Your task to perform on an android device: Open Google Maps and go to "Timeline" Image 0: 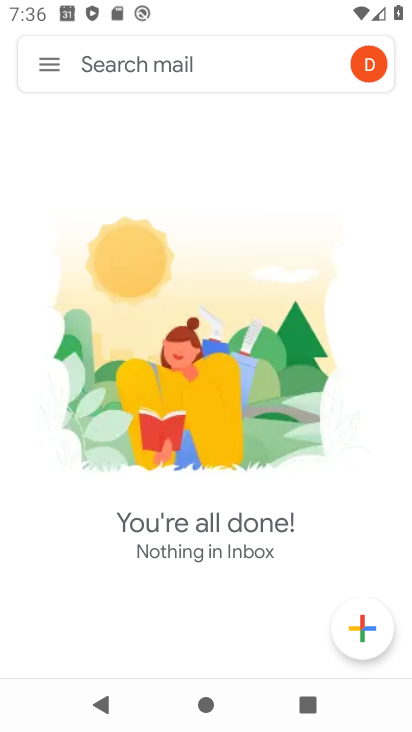
Step 0: press home button
Your task to perform on an android device: Open Google Maps and go to "Timeline" Image 1: 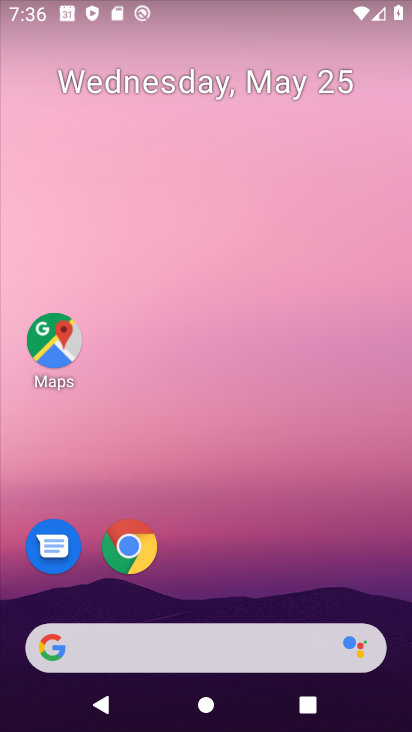
Step 1: drag from (384, 584) to (384, 209)
Your task to perform on an android device: Open Google Maps and go to "Timeline" Image 2: 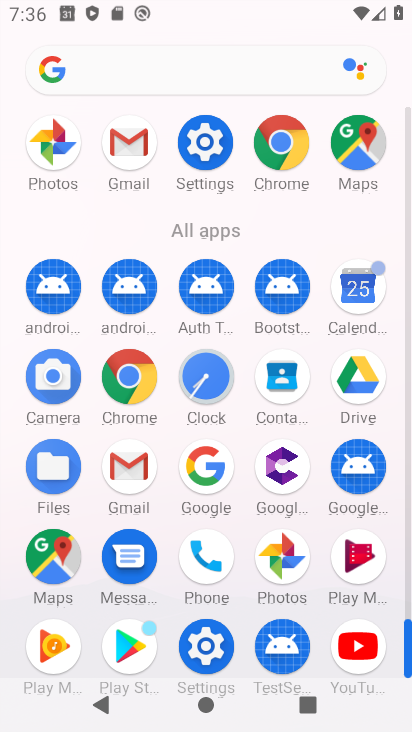
Step 2: click (367, 140)
Your task to perform on an android device: Open Google Maps and go to "Timeline" Image 3: 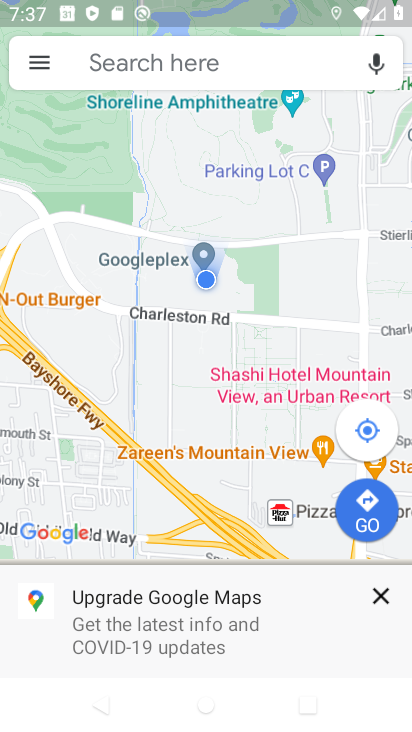
Step 3: click (41, 64)
Your task to perform on an android device: Open Google Maps and go to "Timeline" Image 4: 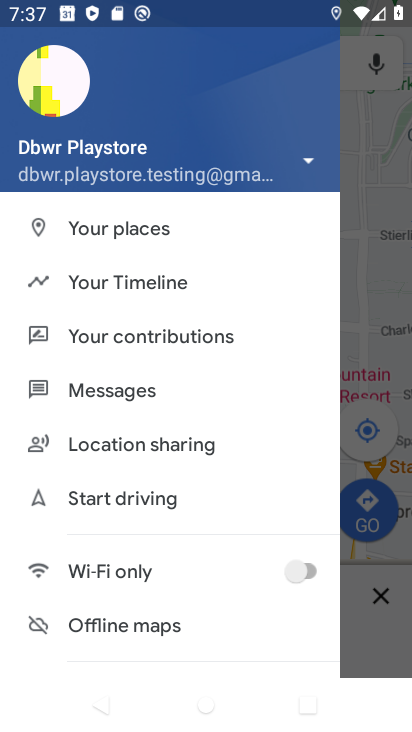
Step 4: click (183, 286)
Your task to perform on an android device: Open Google Maps and go to "Timeline" Image 5: 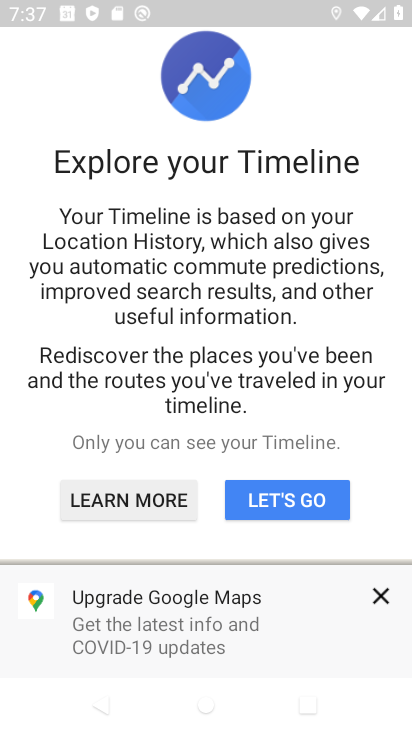
Step 5: task complete